Your task to perform on an android device: Do I have any events this weekend? Image 0: 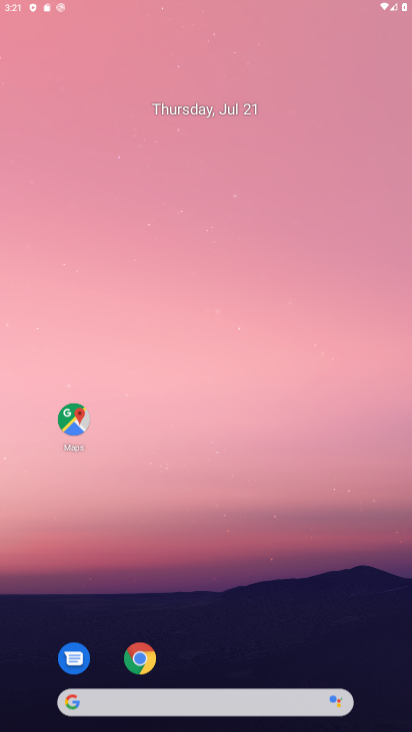
Step 0: press home button
Your task to perform on an android device: Do I have any events this weekend? Image 1: 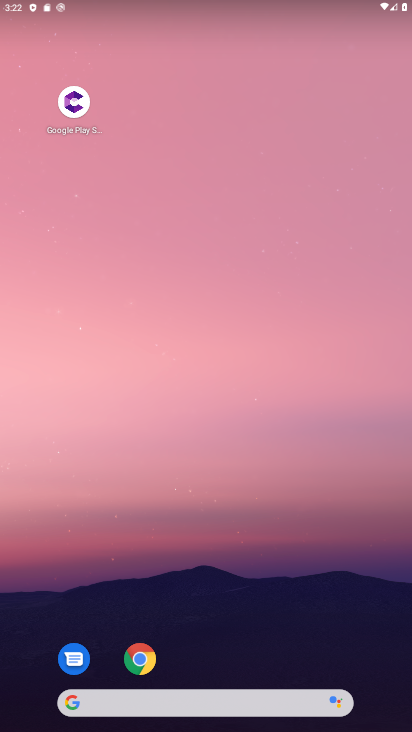
Step 1: drag from (224, 598) to (125, 15)
Your task to perform on an android device: Do I have any events this weekend? Image 2: 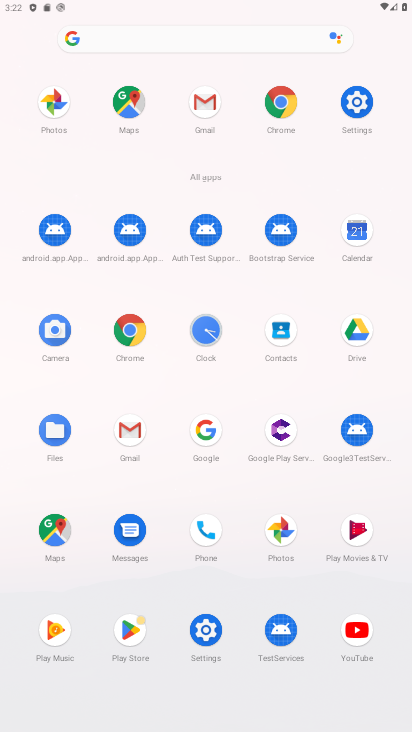
Step 2: click (362, 233)
Your task to perform on an android device: Do I have any events this weekend? Image 3: 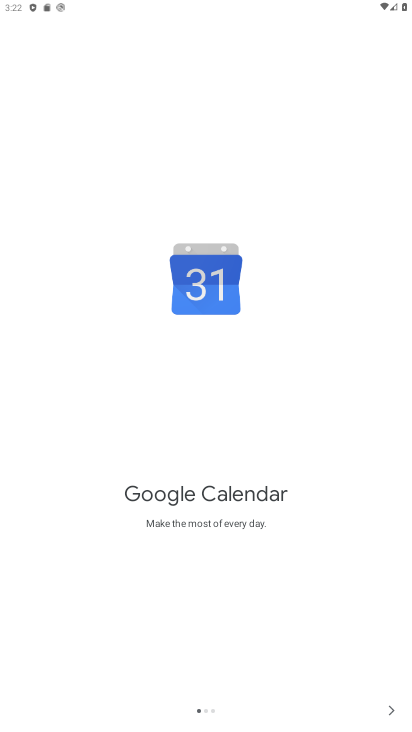
Step 3: click (390, 705)
Your task to perform on an android device: Do I have any events this weekend? Image 4: 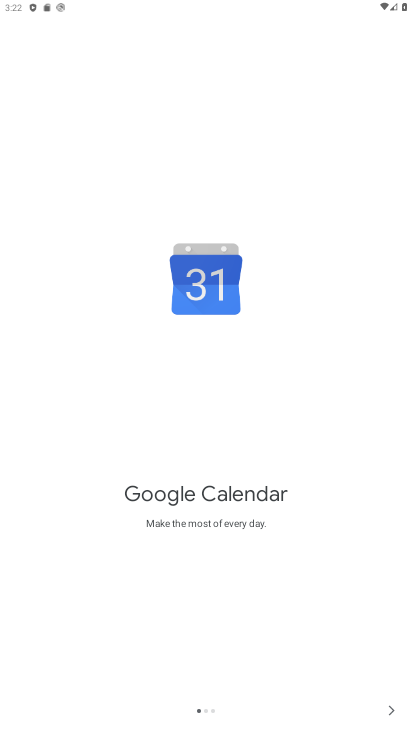
Step 4: click (390, 705)
Your task to perform on an android device: Do I have any events this weekend? Image 5: 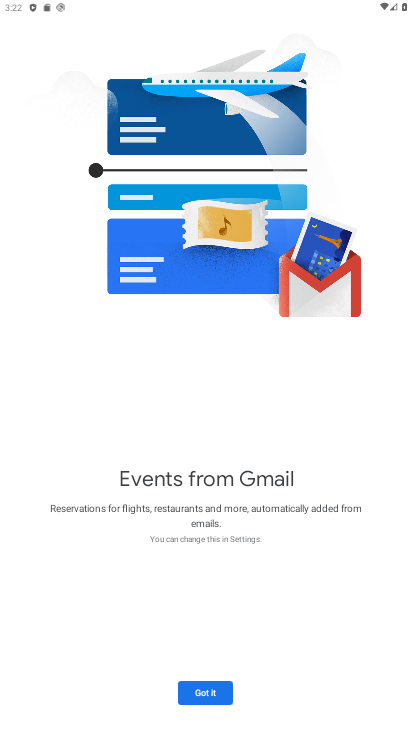
Step 5: click (197, 696)
Your task to perform on an android device: Do I have any events this weekend? Image 6: 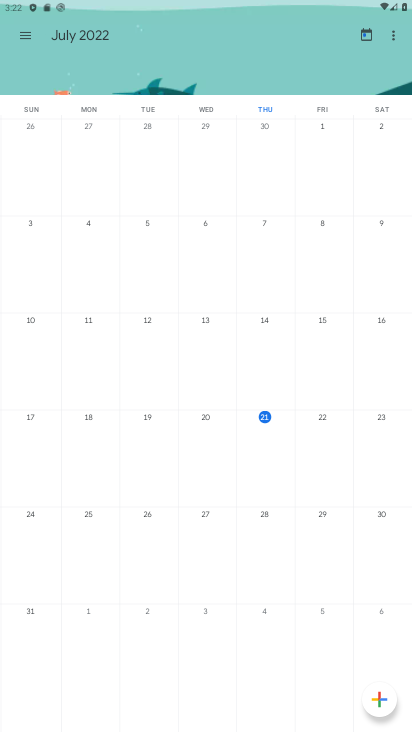
Step 6: click (263, 415)
Your task to perform on an android device: Do I have any events this weekend? Image 7: 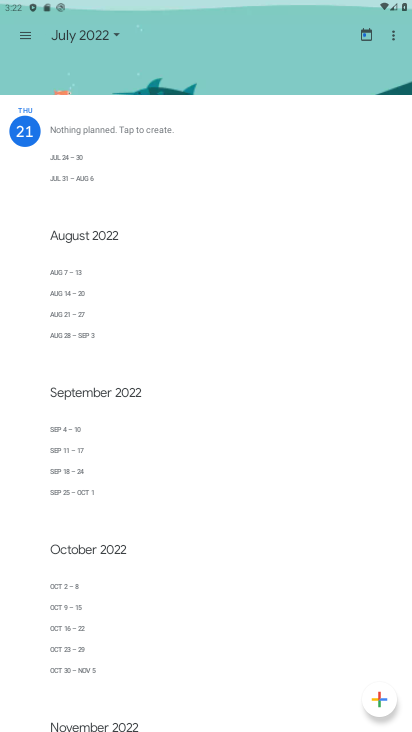
Step 7: click (24, 30)
Your task to perform on an android device: Do I have any events this weekend? Image 8: 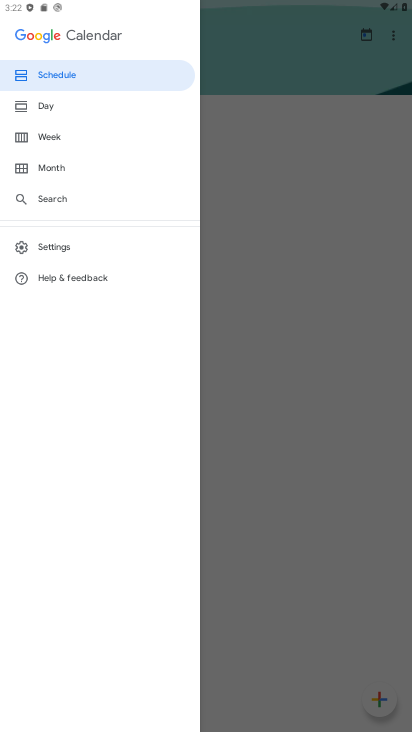
Step 8: click (50, 137)
Your task to perform on an android device: Do I have any events this weekend? Image 9: 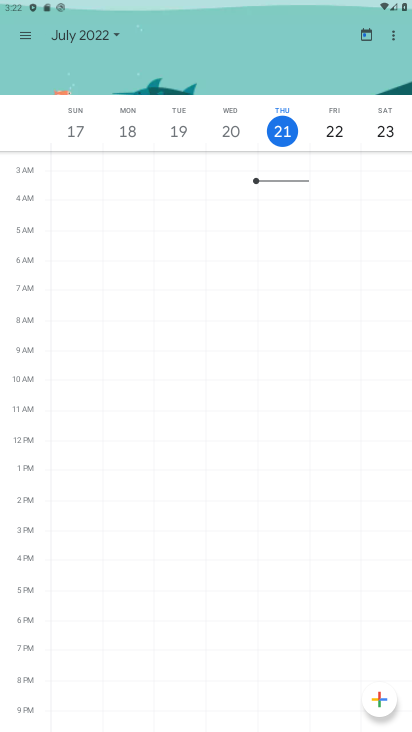
Step 9: task complete